Your task to perform on an android device: turn on the 24-hour format for clock Image 0: 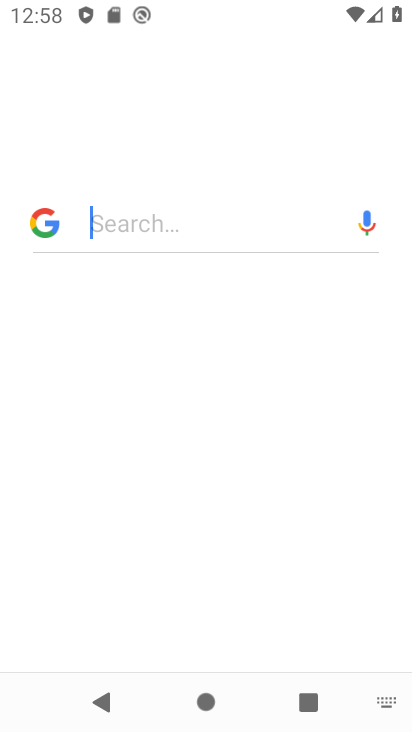
Step 0: drag from (212, 582) to (208, 255)
Your task to perform on an android device: turn on the 24-hour format for clock Image 1: 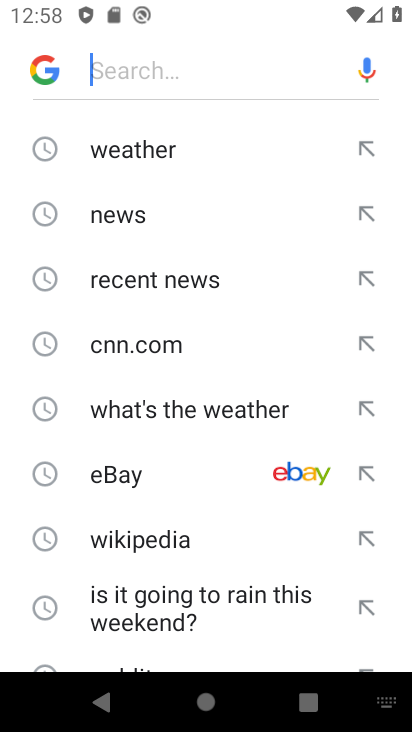
Step 1: press home button
Your task to perform on an android device: turn on the 24-hour format for clock Image 2: 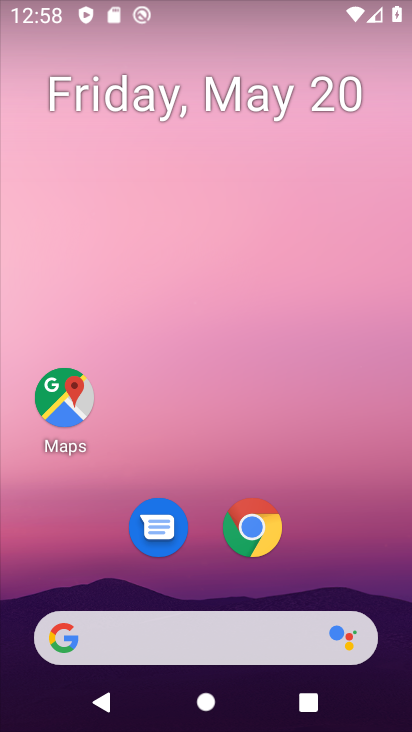
Step 2: drag from (206, 584) to (275, 130)
Your task to perform on an android device: turn on the 24-hour format for clock Image 3: 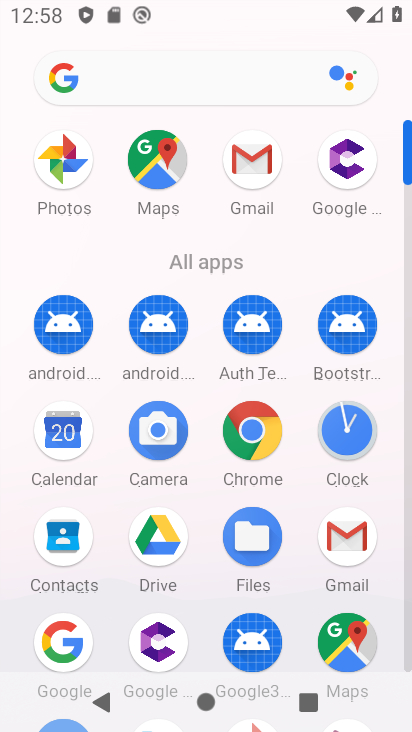
Step 3: click (345, 420)
Your task to perform on an android device: turn on the 24-hour format for clock Image 4: 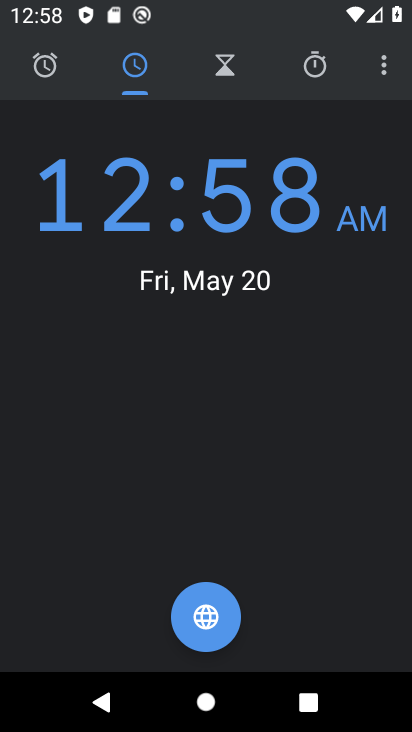
Step 4: click (381, 60)
Your task to perform on an android device: turn on the 24-hour format for clock Image 5: 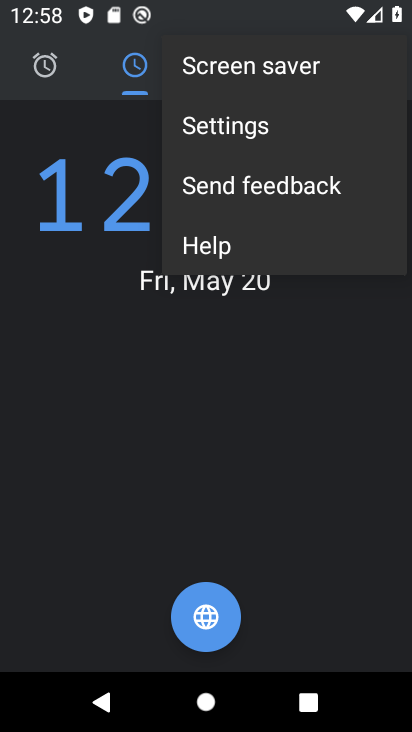
Step 5: click (271, 130)
Your task to perform on an android device: turn on the 24-hour format for clock Image 6: 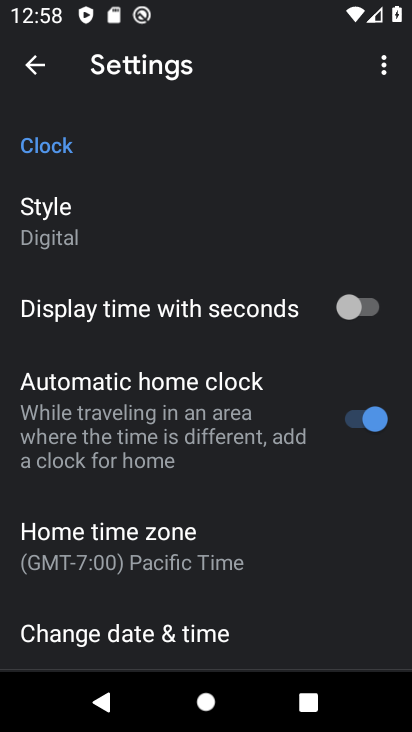
Step 6: click (240, 622)
Your task to perform on an android device: turn on the 24-hour format for clock Image 7: 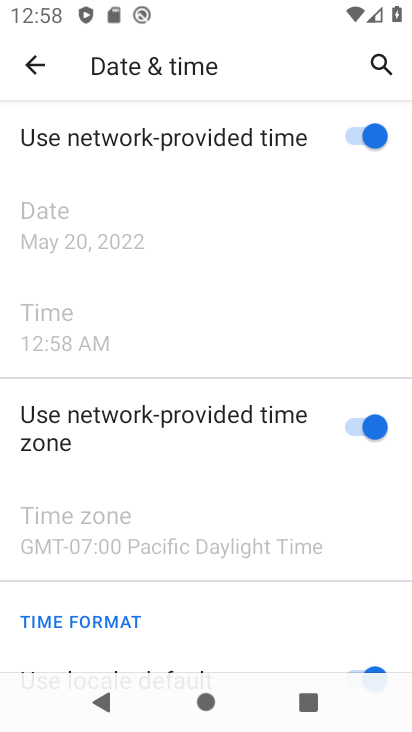
Step 7: drag from (274, 511) to (326, 153)
Your task to perform on an android device: turn on the 24-hour format for clock Image 8: 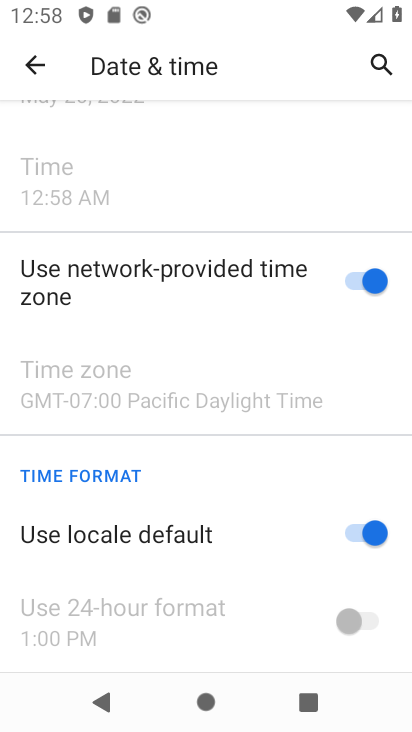
Step 8: click (357, 537)
Your task to perform on an android device: turn on the 24-hour format for clock Image 9: 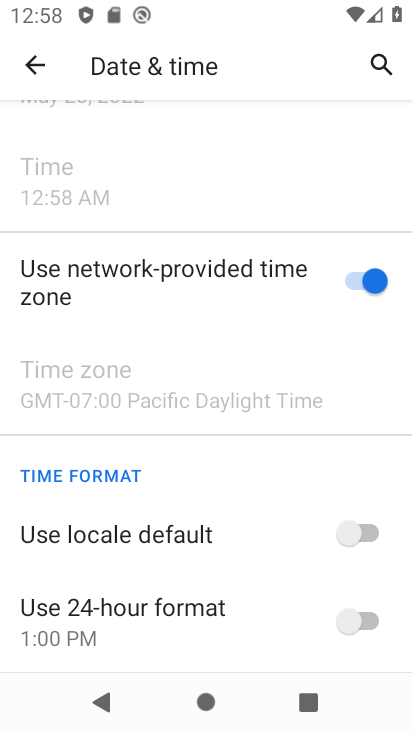
Step 9: click (363, 618)
Your task to perform on an android device: turn on the 24-hour format for clock Image 10: 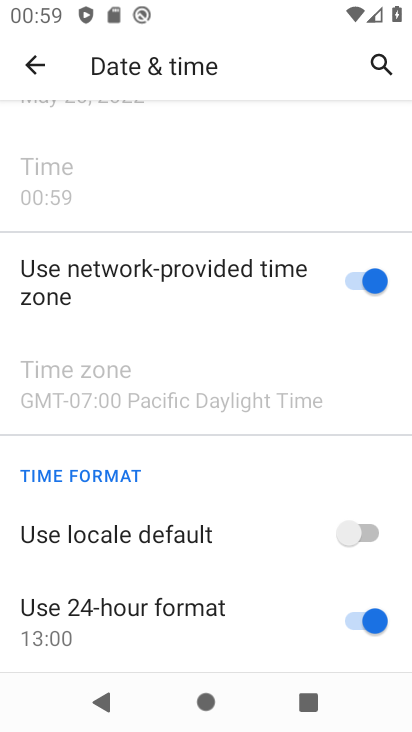
Step 10: task complete